Your task to perform on an android device: turn on notifications settings in the gmail app Image 0: 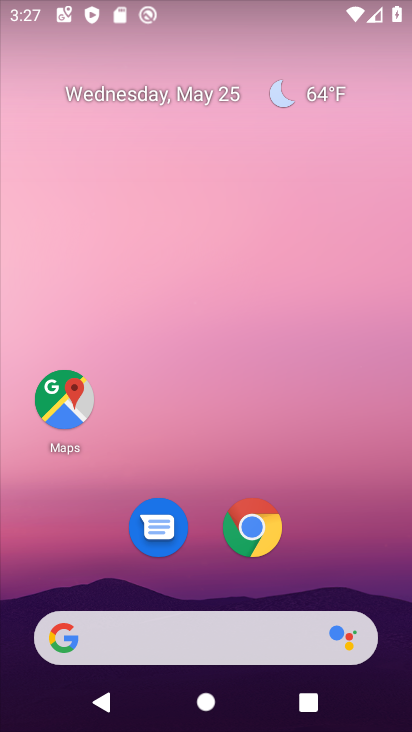
Step 0: drag from (215, 524) to (248, 43)
Your task to perform on an android device: turn on notifications settings in the gmail app Image 1: 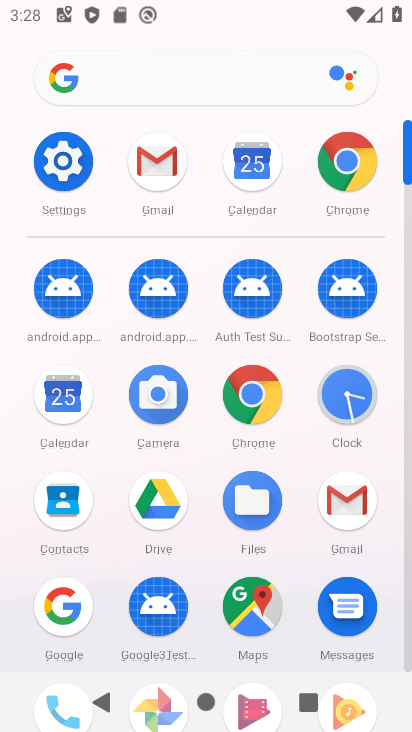
Step 1: click (167, 163)
Your task to perform on an android device: turn on notifications settings in the gmail app Image 2: 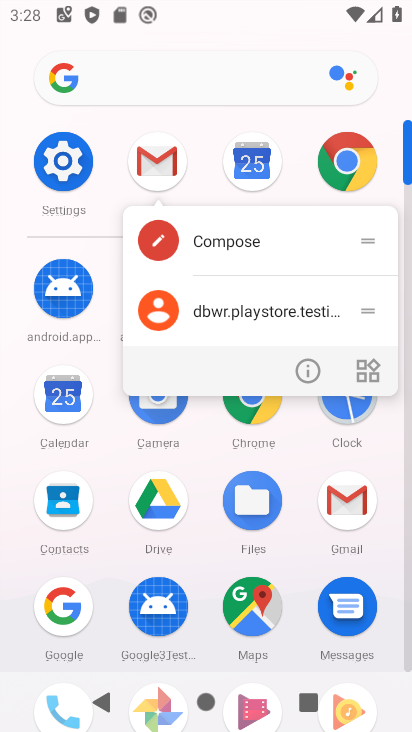
Step 2: click (307, 365)
Your task to perform on an android device: turn on notifications settings in the gmail app Image 3: 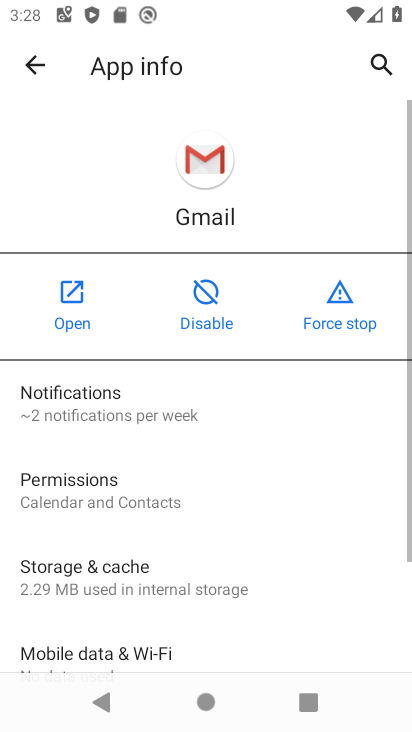
Step 3: click (66, 402)
Your task to perform on an android device: turn on notifications settings in the gmail app Image 4: 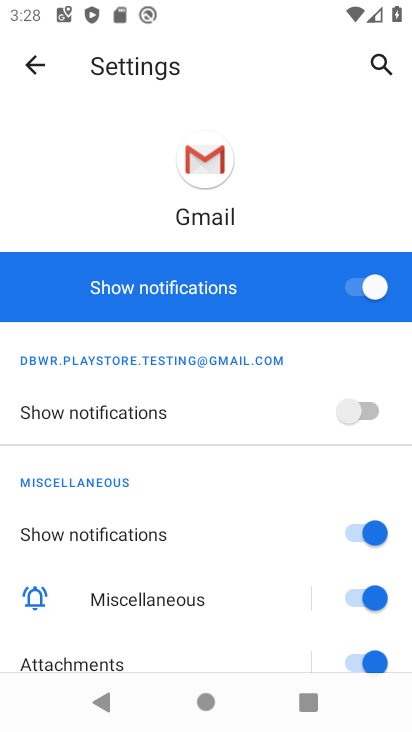
Step 4: task complete